Your task to perform on an android device: What's on my calendar today? Image 0: 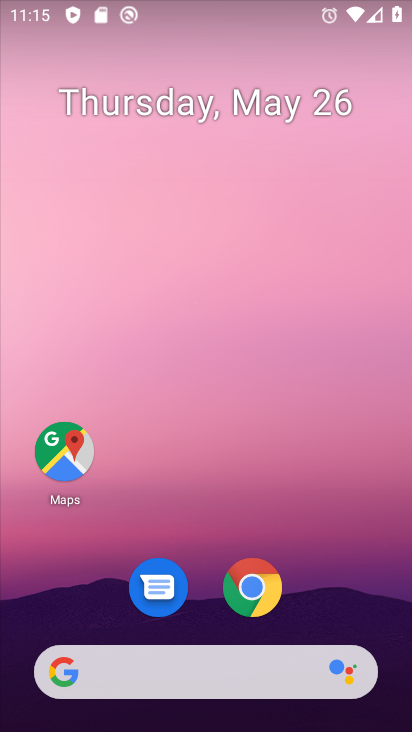
Step 0: press home button
Your task to perform on an android device: What's on my calendar today? Image 1: 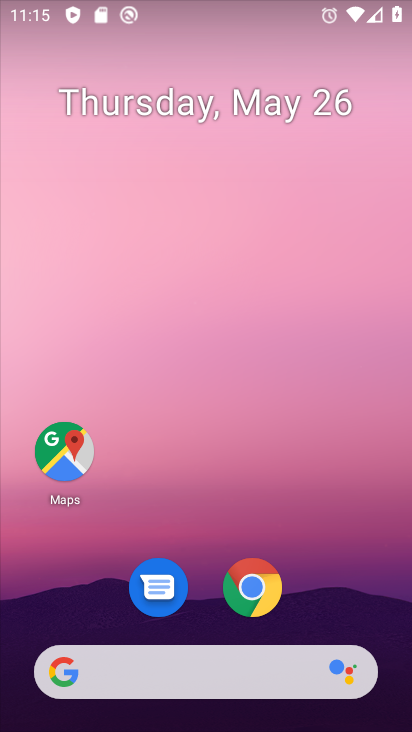
Step 1: drag from (233, 690) to (295, 0)
Your task to perform on an android device: What's on my calendar today? Image 2: 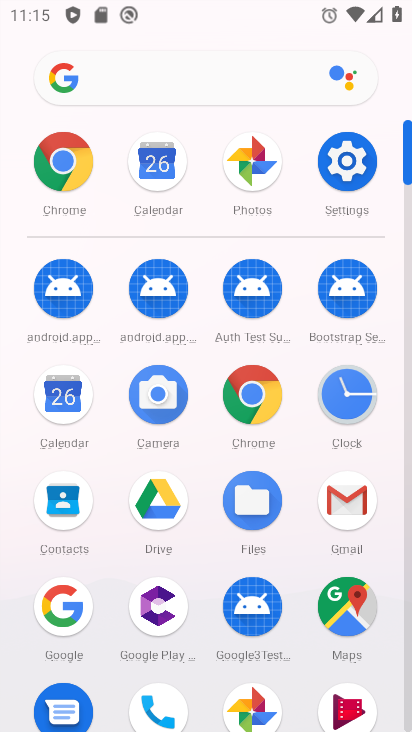
Step 2: click (158, 181)
Your task to perform on an android device: What's on my calendar today? Image 3: 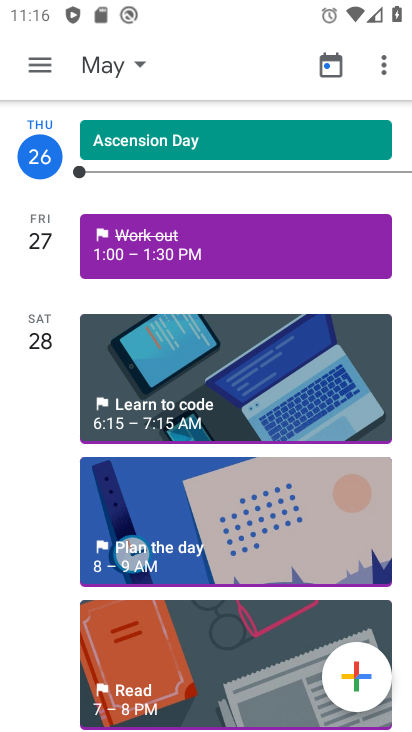
Step 3: click (43, 67)
Your task to perform on an android device: What's on my calendar today? Image 4: 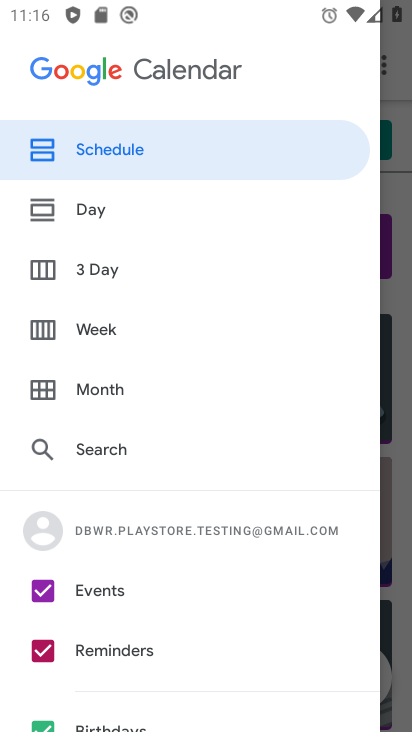
Step 4: click (132, 163)
Your task to perform on an android device: What's on my calendar today? Image 5: 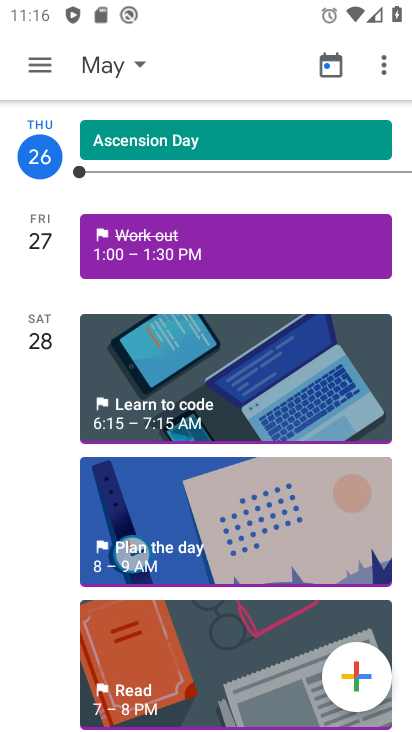
Step 5: task complete